Your task to perform on an android device: change the clock display to analog Image 0: 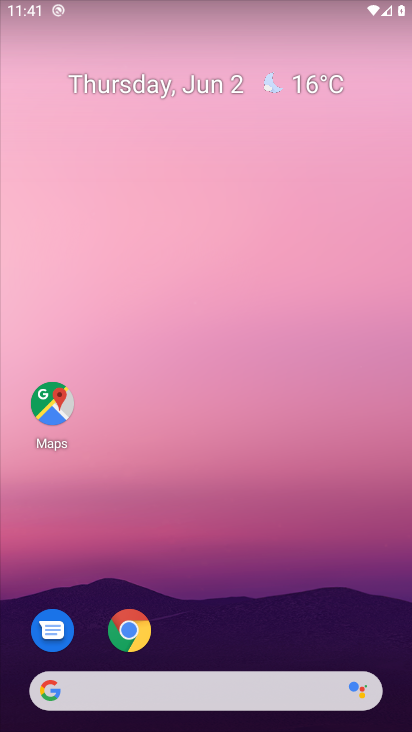
Step 0: drag from (216, 632) to (319, 3)
Your task to perform on an android device: change the clock display to analog Image 1: 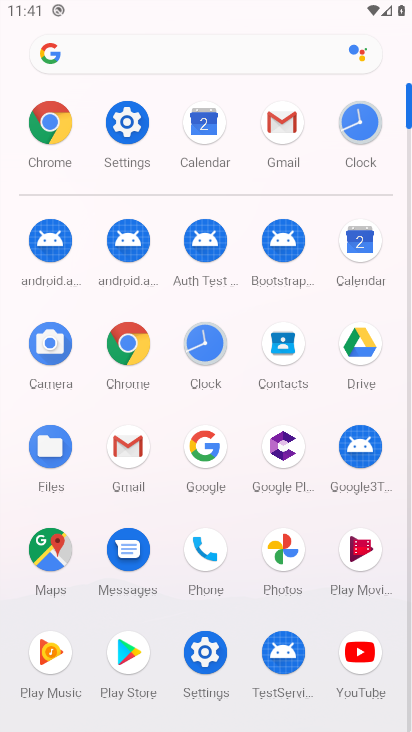
Step 1: click (207, 347)
Your task to perform on an android device: change the clock display to analog Image 2: 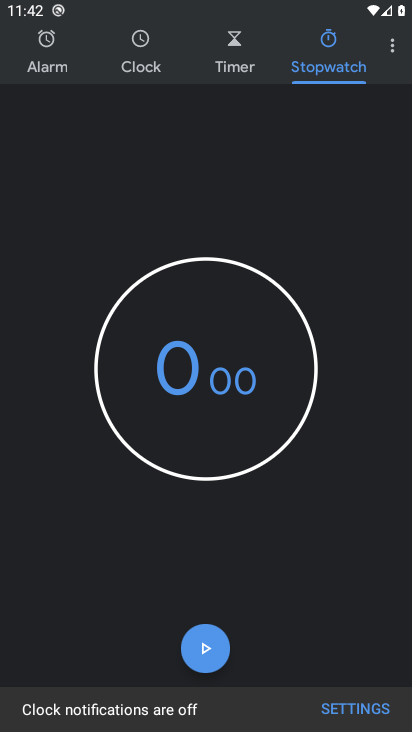
Step 2: click (388, 57)
Your task to perform on an android device: change the clock display to analog Image 3: 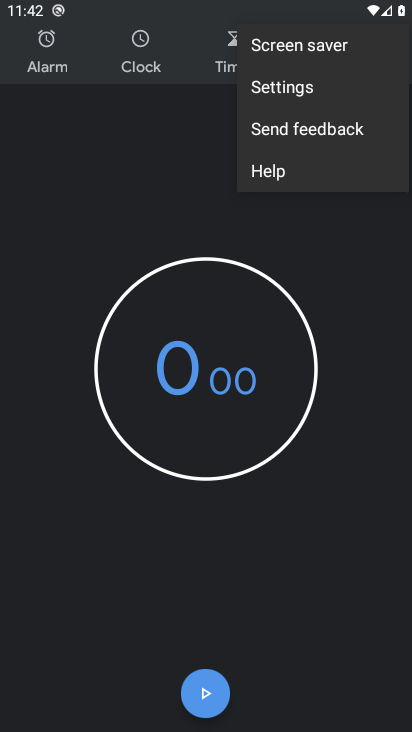
Step 3: click (311, 96)
Your task to perform on an android device: change the clock display to analog Image 4: 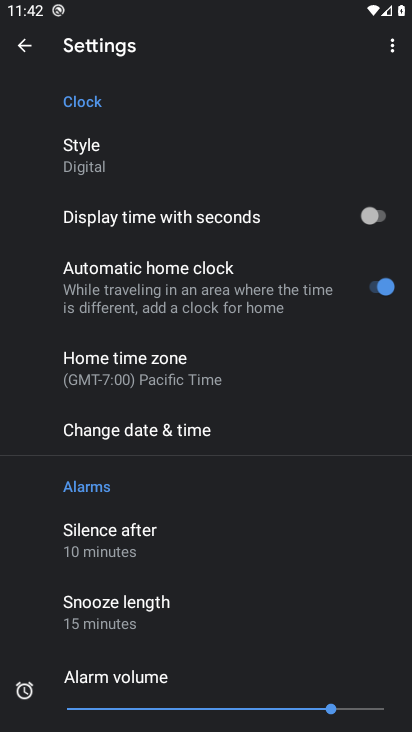
Step 4: click (104, 165)
Your task to perform on an android device: change the clock display to analog Image 5: 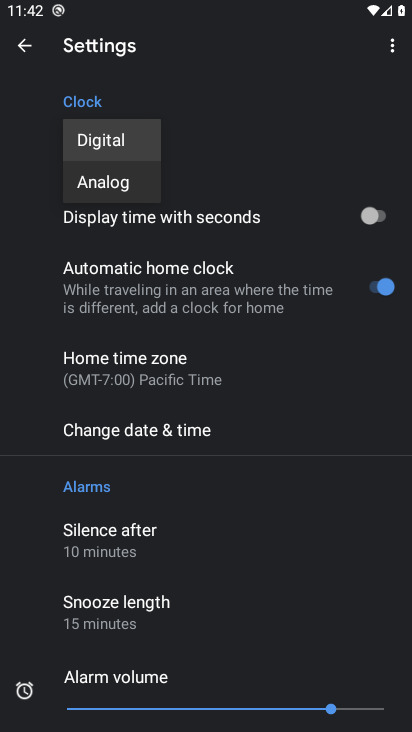
Step 5: click (116, 186)
Your task to perform on an android device: change the clock display to analog Image 6: 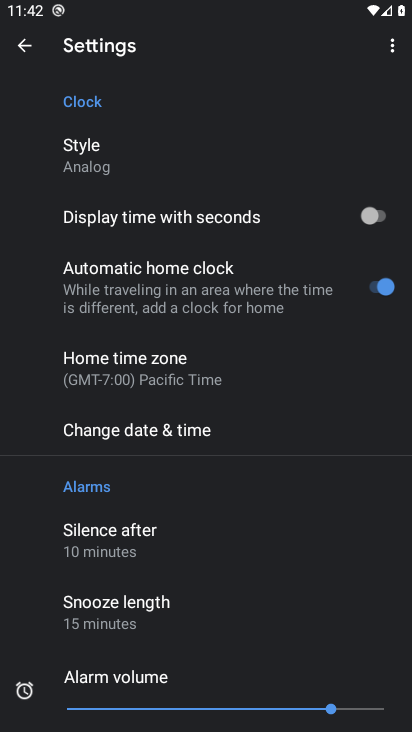
Step 6: task complete